Your task to perform on an android device: turn on the 24-hour format for clock Image 0: 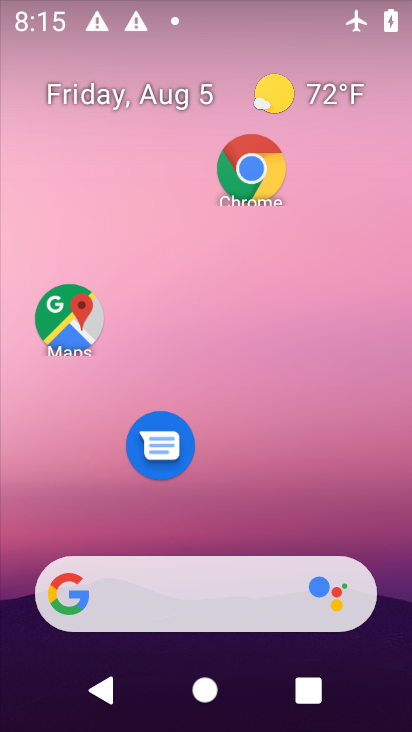
Step 0: drag from (207, 536) to (179, 100)
Your task to perform on an android device: turn on the 24-hour format for clock Image 1: 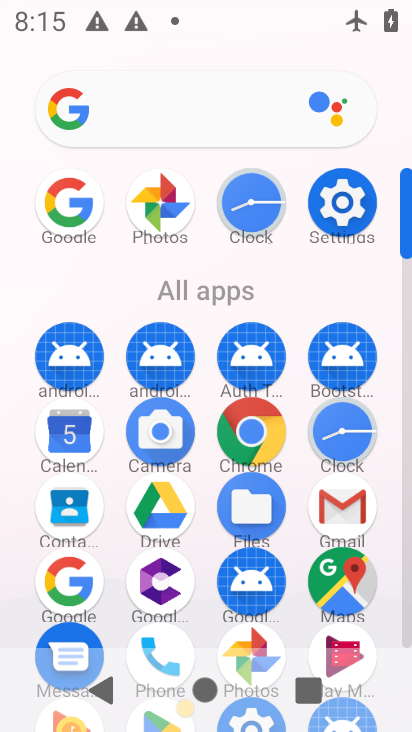
Step 1: click (245, 186)
Your task to perform on an android device: turn on the 24-hour format for clock Image 2: 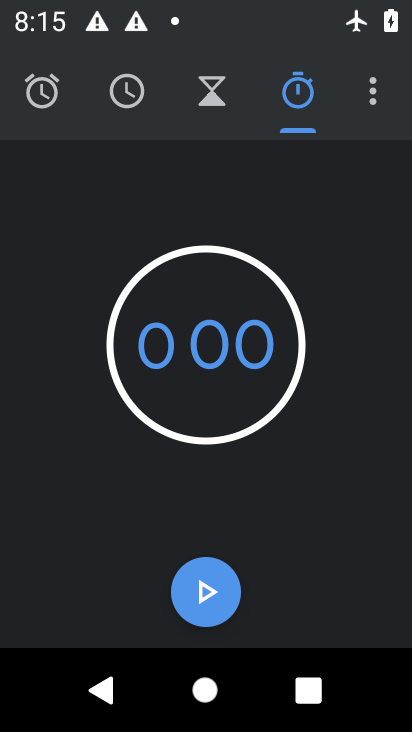
Step 2: click (374, 88)
Your task to perform on an android device: turn on the 24-hour format for clock Image 3: 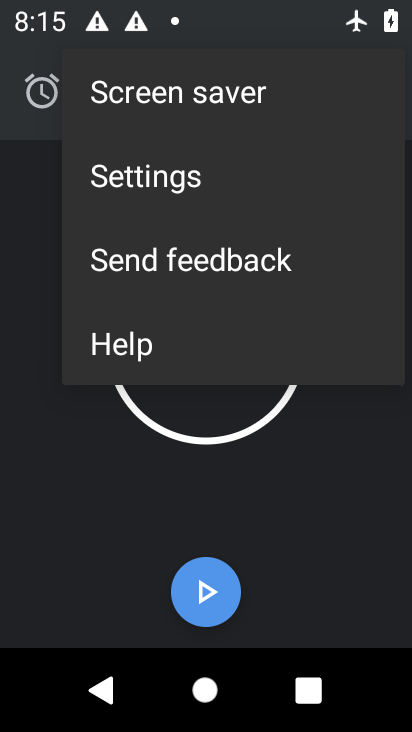
Step 3: click (259, 165)
Your task to perform on an android device: turn on the 24-hour format for clock Image 4: 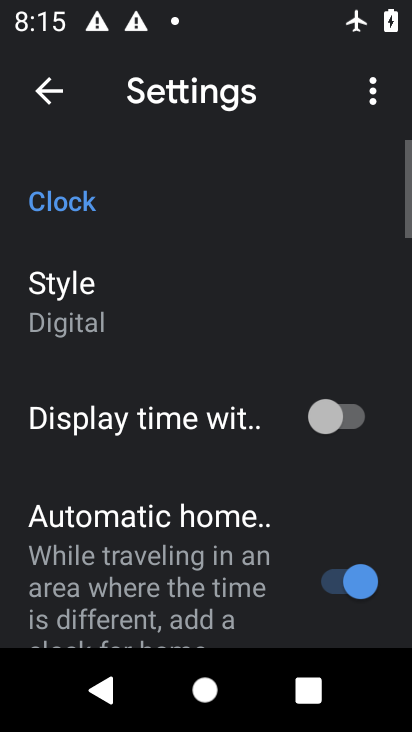
Step 4: drag from (182, 598) to (184, 182)
Your task to perform on an android device: turn on the 24-hour format for clock Image 5: 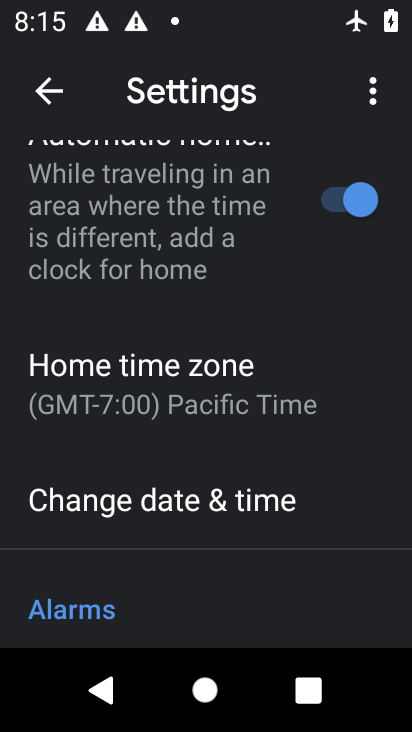
Step 5: click (218, 509)
Your task to perform on an android device: turn on the 24-hour format for clock Image 6: 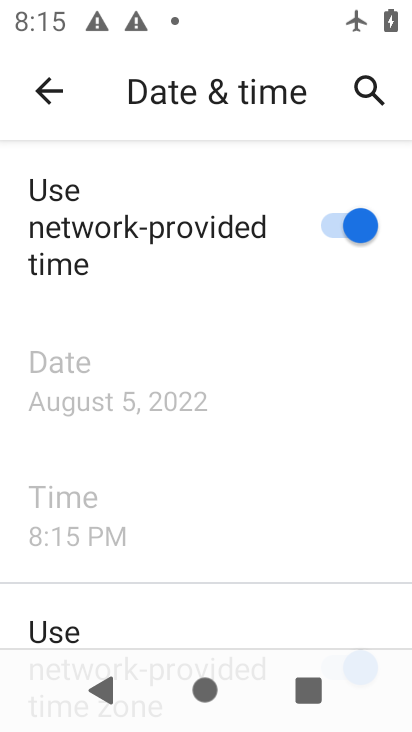
Step 6: drag from (202, 587) to (213, 241)
Your task to perform on an android device: turn on the 24-hour format for clock Image 7: 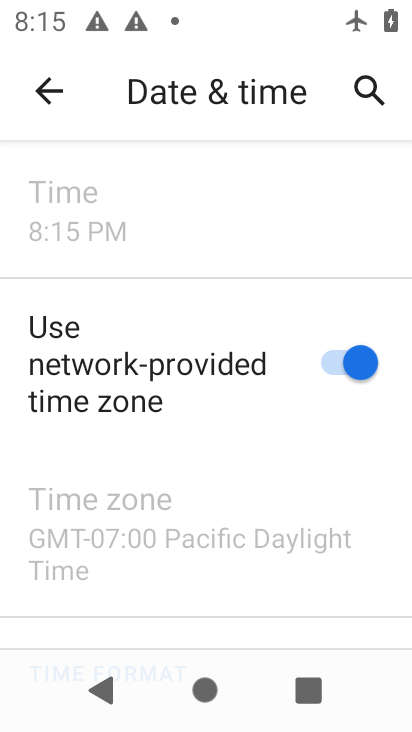
Step 7: drag from (238, 515) to (237, 179)
Your task to perform on an android device: turn on the 24-hour format for clock Image 8: 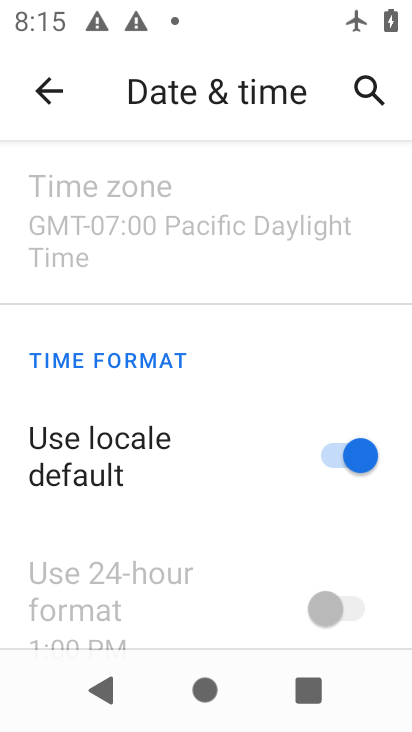
Step 8: drag from (231, 573) to (239, 258)
Your task to perform on an android device: turn on the 24-hour format for clock Image 9: 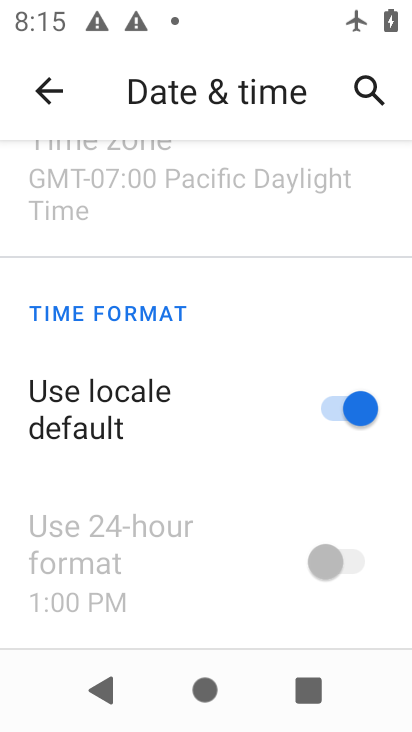
Step 9: drag from (266, 576) to (242, 287)
Your task to perform on an android device: turn on the 24-hour format for clock Image 10: 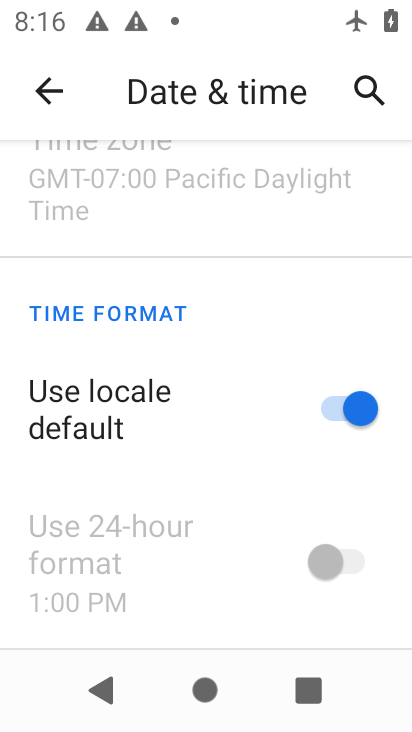
Step 10: click (338, 410)
Your task to perform on an android device: turn on the 24-hour format for clock Image 11: 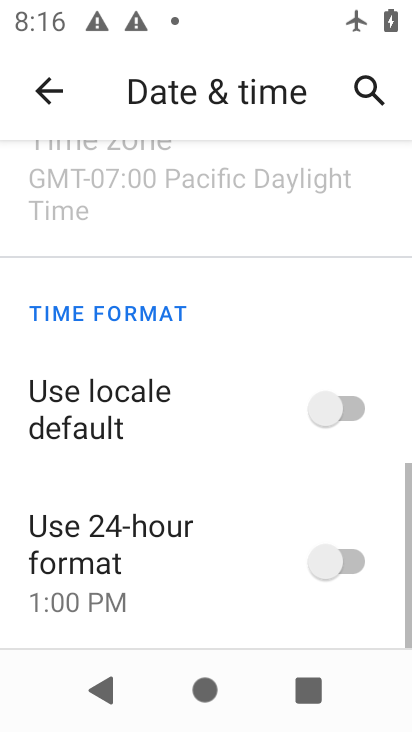
Step 11: click (362, 568)
Your task to perform on an android device: turn on the 24-hour format for clock Image 12: 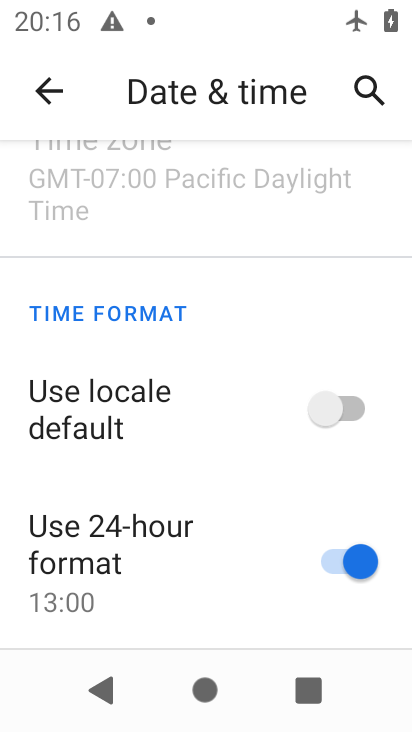
Step 12: task complete